Your task to perform on an android device: change the clock display to analog Image 0: 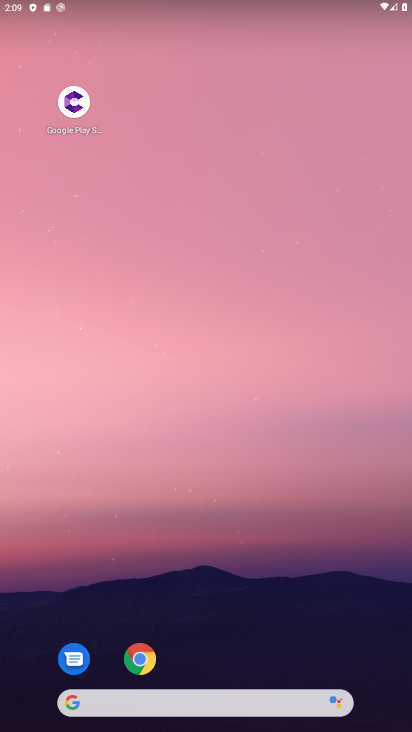
Step 0: drag from (230, 612) to (277, 89)
Your task to perform on an android device: change the clock display to analog Image 1: 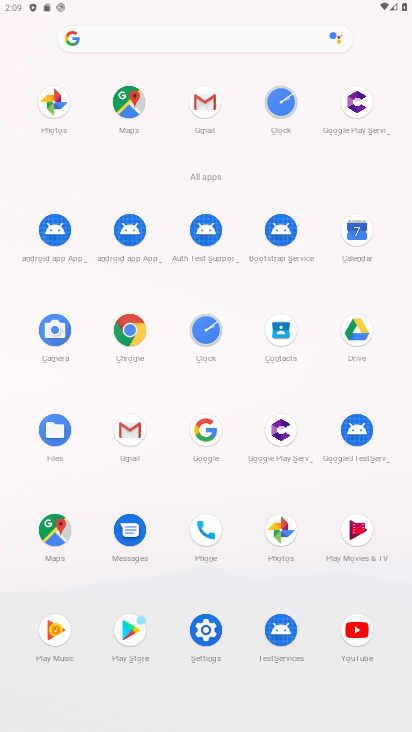
Step 1: click (203, 342)
Your task to perform on an android device: change the clock display to analog Image 2: 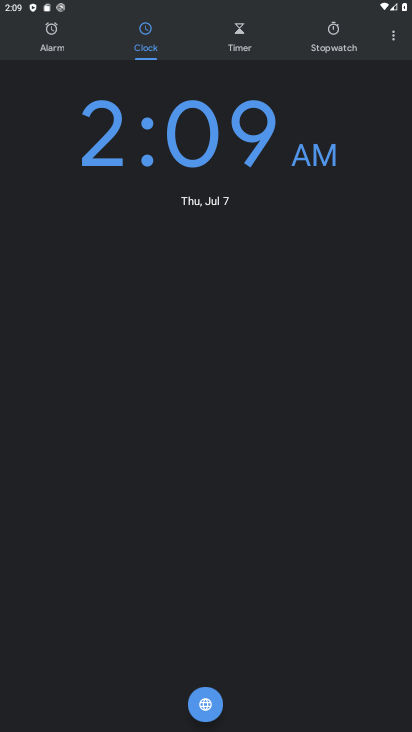
Step 2: click (390, 34)
Your task to perform on an android device: change the clock display to analog Image 3: 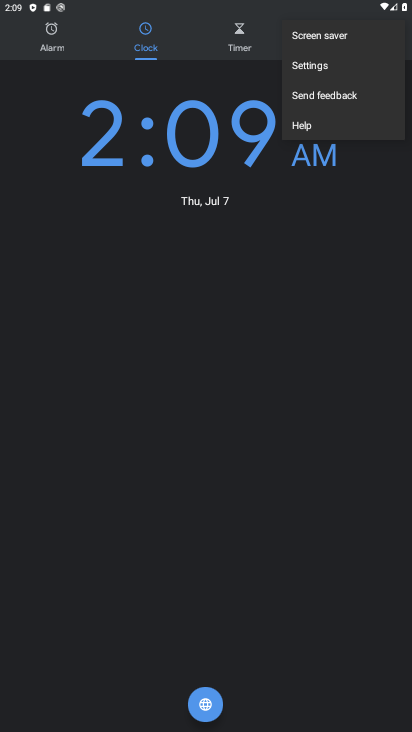
Step 3: click (317, 65)
Your task to perform on an android device: change the clock display to analog Image 4: 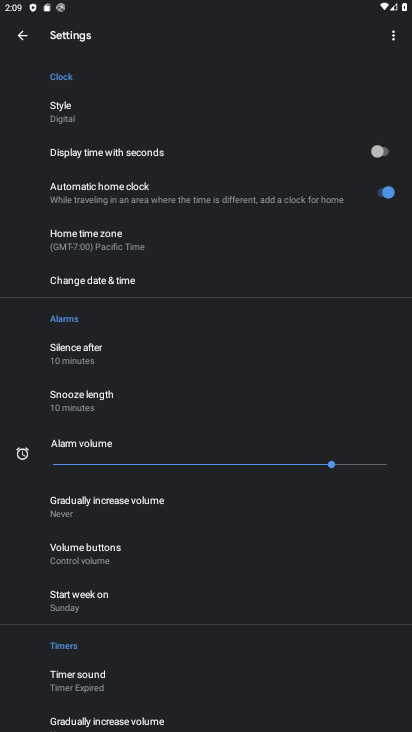
Step 4: click (81, 116)
Your task to perform on an android device: change the clock display to analog Image 5: 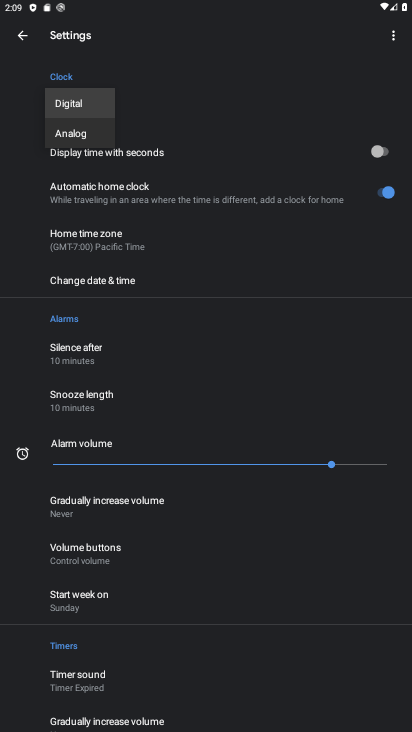
Step 5: click (83, 135)
Your task to perform on an android device: change the clock display to analog Image 6: 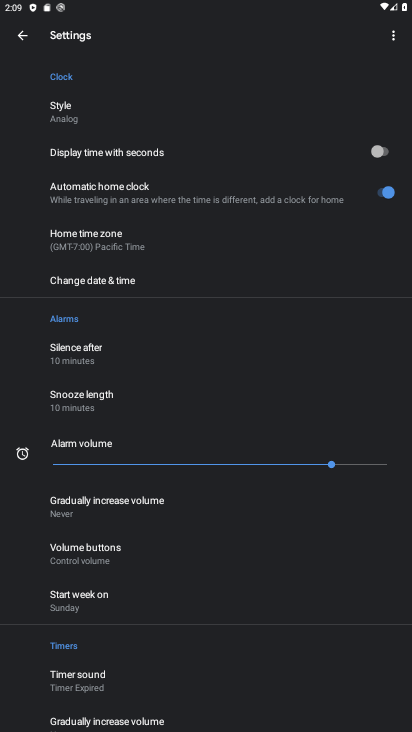
Step 6: task complete